Your task to perform on an android device: all mails in gmail Image 0: 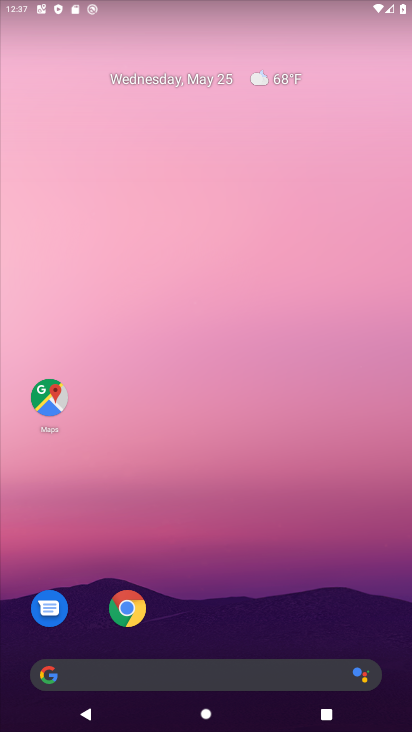
Step 0: drag from (316, 639) to (342, 81)
Your task to perform on an android device: all mails in gmail Image 1: 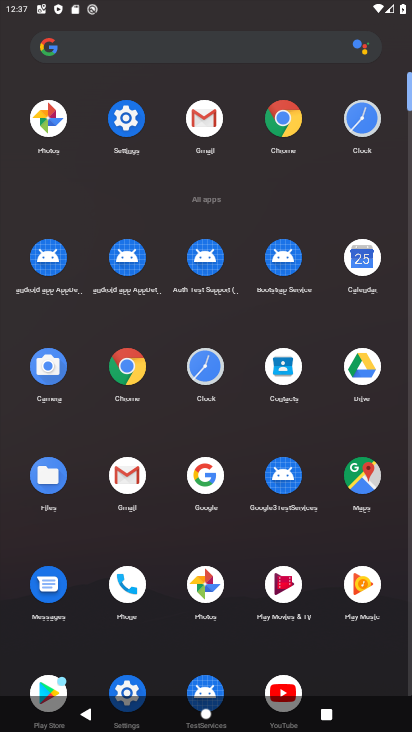
Step 1: click (133, 480)
Your task to perform on an android device: all mails in gmail Image 2: 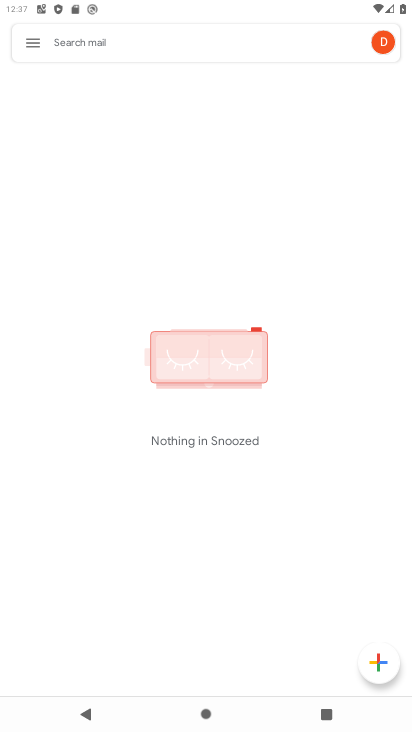
Step 2: click (16, 22)
Your task to perform on an android device: all mails in gmail Image 3: 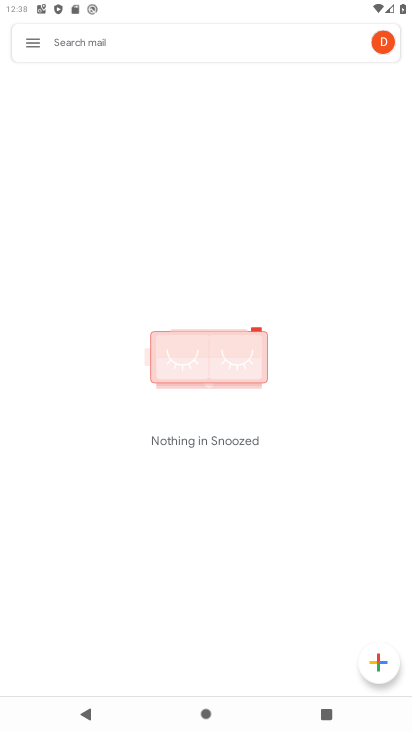
Step 3: click (39, 41)
Your task to perform on an android device: all mails in gmail Image 4: 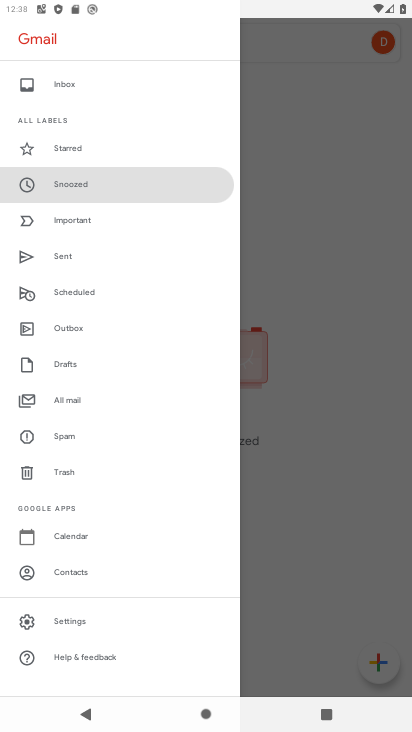
Step 4: click (109, 400)
Your task to perform on an android device: all mails in gmail Image 5: 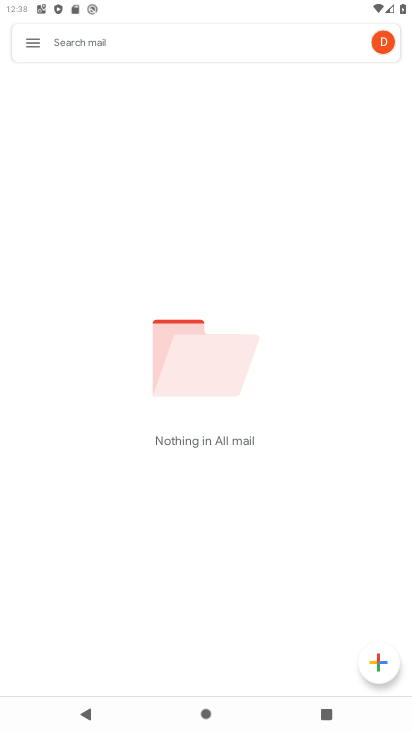
Step 5: task complete